Your task to perform on an android device: change the clock display to analog Image 0: 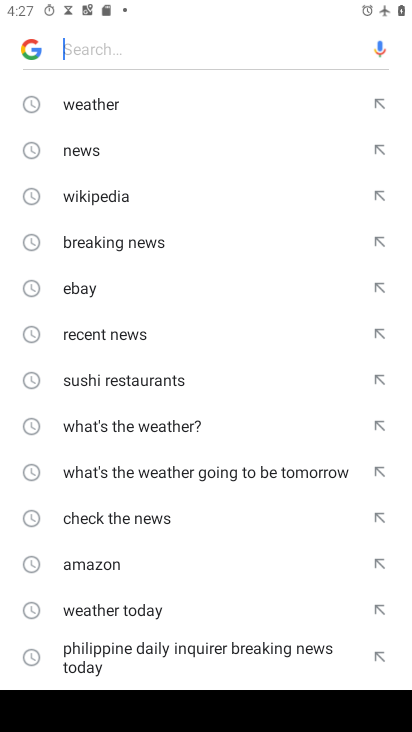
Step 0: press home button
Your task to perform on an android device: change the clock display to analog Image 1: 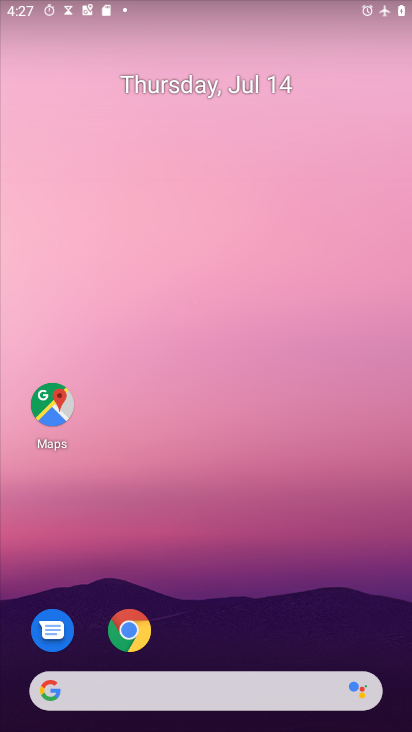
Step 1: drag from (227, 709) to (227, 121)
Your task to perform on an android device: change the clock display to analog Image 2: 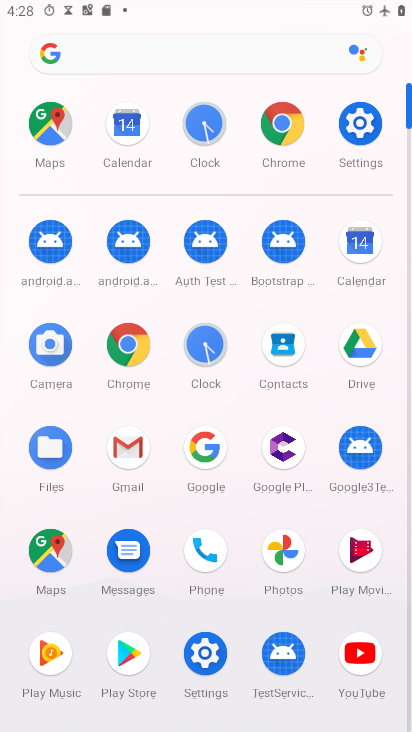
Step 2: click (212, 355)
Your task to perform on an android device: change the clock display to analog Image 3: 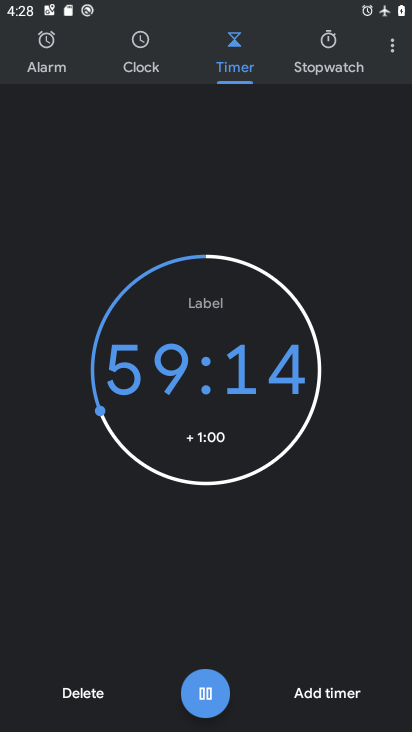
Step 3: click (393, 48)
Your task to perform on an android device: change the clock display to analog Image 4: 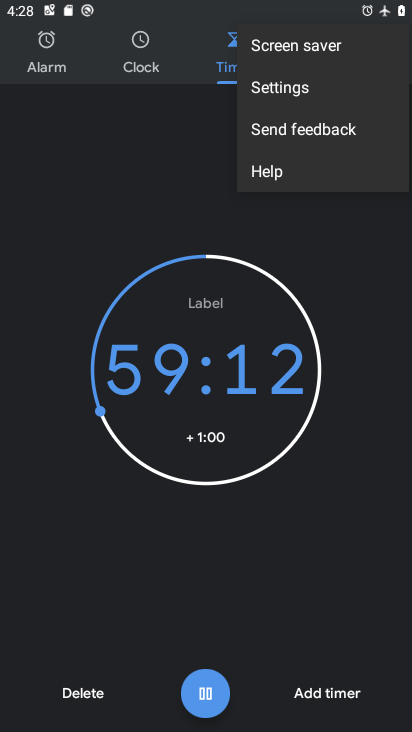
Step 4: click (290, 88)
Your task to perform on an android device: change the clock display to analog Image 5: 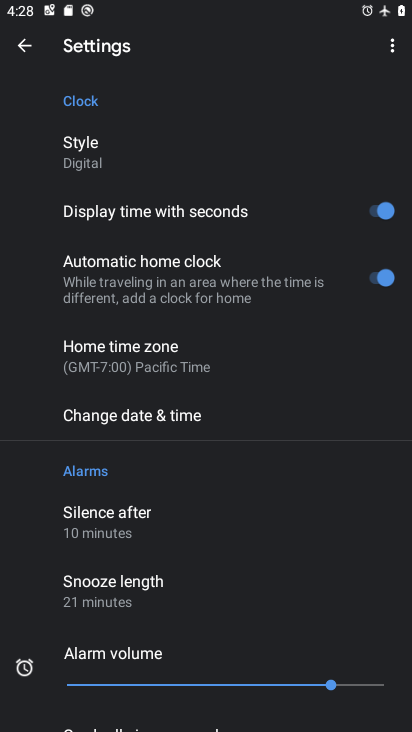
Step 5: click (73, 159)
Your task to perform on an android device: change the clock display to analog Image 6: 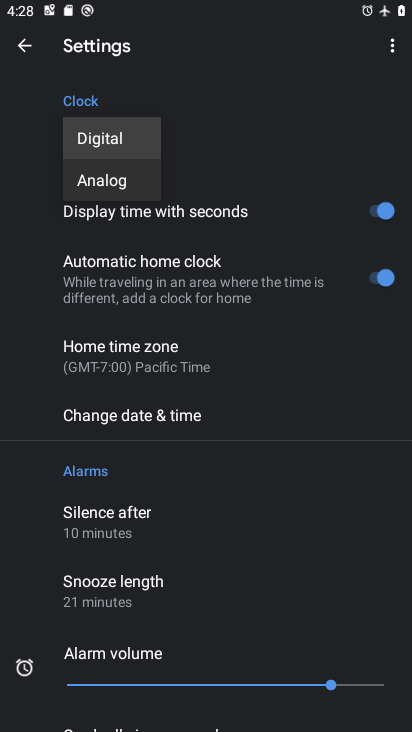
Step 6: click (104, 178)
Your task to perform on an android device: change the clock display to analog Image 7: 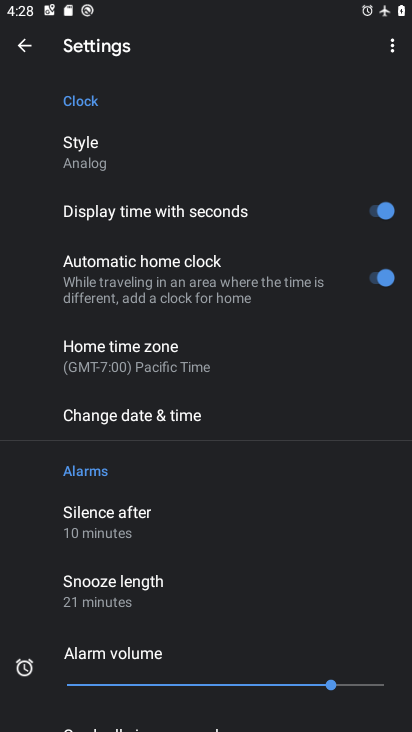
Step 7: task complete